Your task to perform on an android device: Open Yahoo.com Image 0: 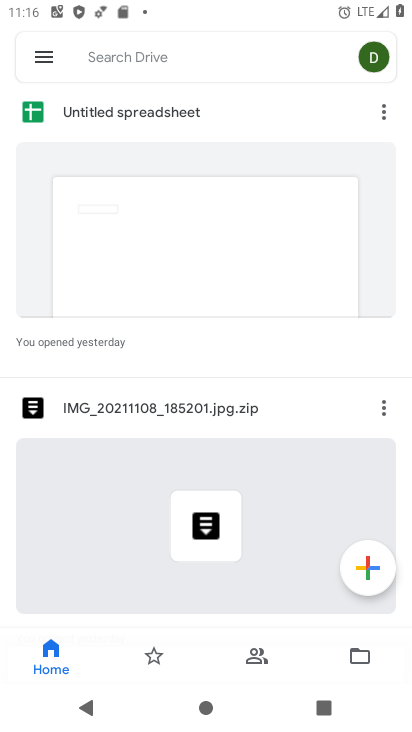
Step 0: press home button
Your task to perform on an android device: Open Yahoo.com Image 1: 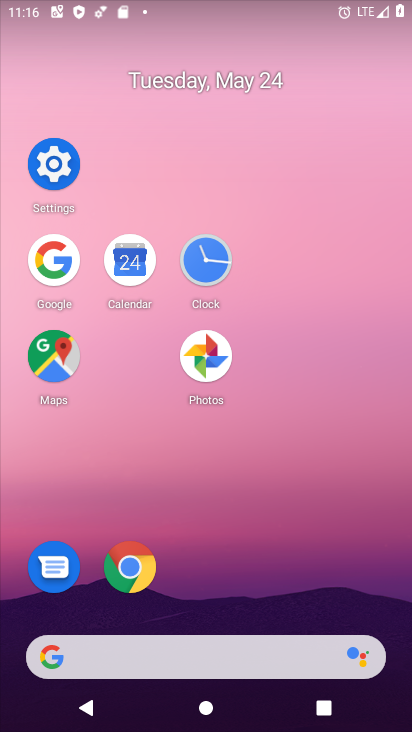
Step 1: click (128, 572)
Your task to perform on an android device: Open Yahoo.com Image 2: 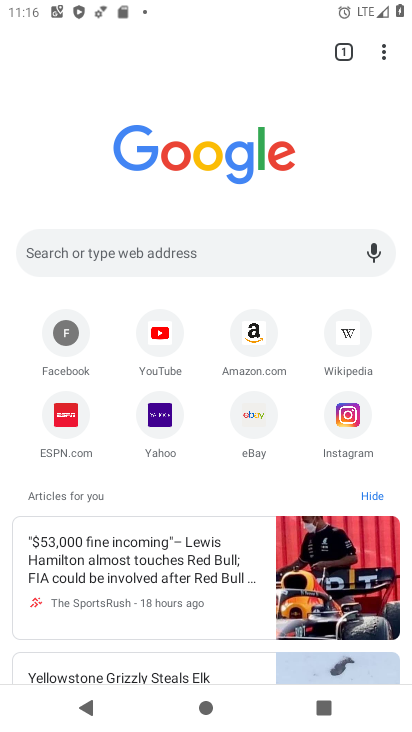
Step 2: click (159, 404)
Your task to perform on an android device: Open Yahoo.com Image 3: 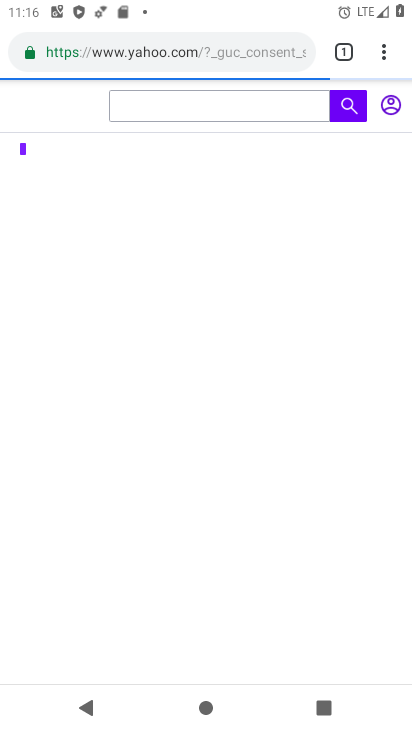
Step 3: task complete